Your task to perform on an android device: Go to sound settings Image 0: 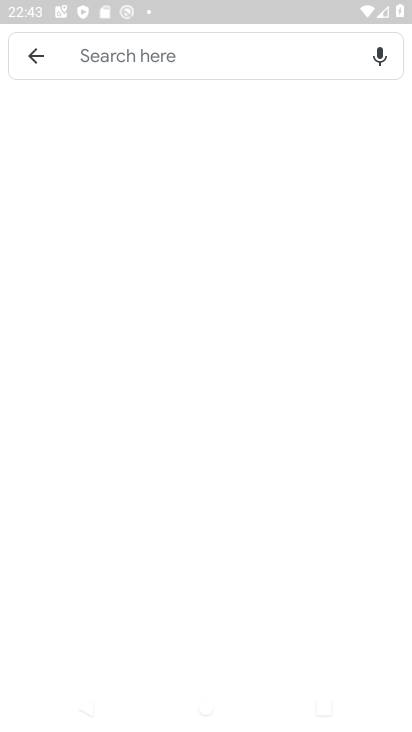
Step 0: drag from (136, 14) to (249, 111)
Your task to perform on an android device: Go to sound settings Image 1: 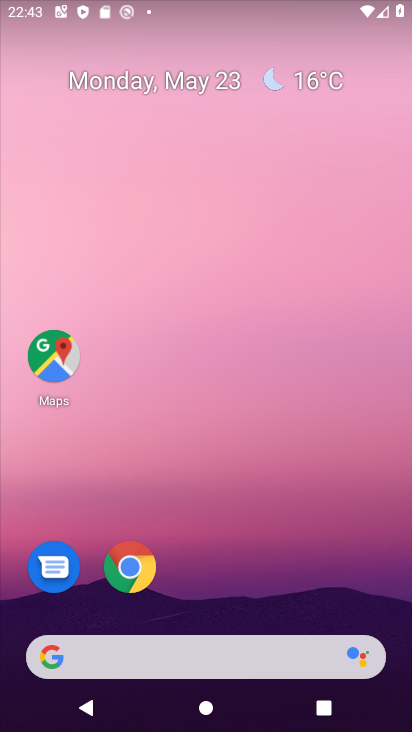
Step 1: drag from (191, 575) to (329, 85)
Your task to perform on an android device: Go to sound settings Image 2: 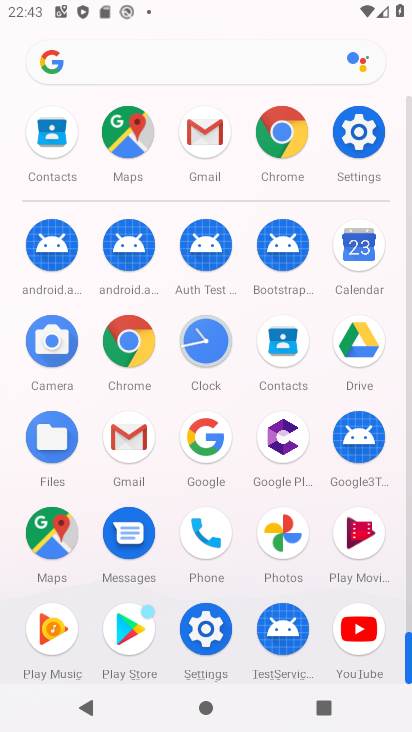
Step 2: click (202, 642)
Your task to perform on an android device: Go to sound settings Image 3: 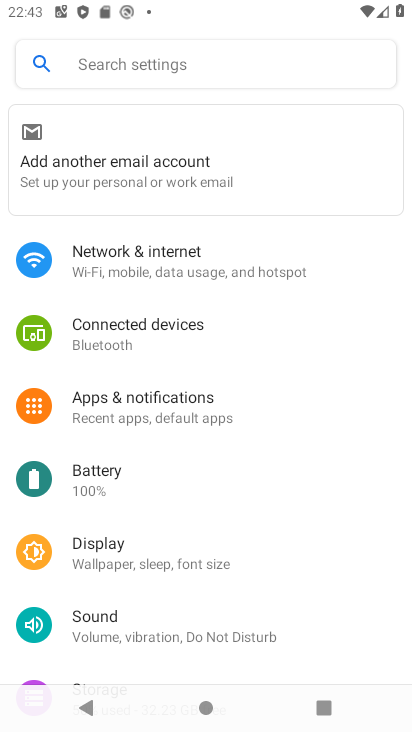
Step 3: drag from (186, 612) to (276, 206)
Your task to perform on an android device: Go to sound settings Image 4: 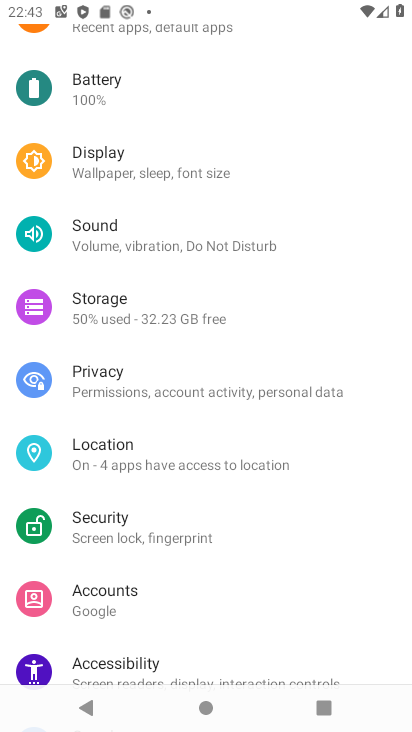
Step 4: click (129, 247)
Your task to perform on an android device: Go to sound settings Image 5: 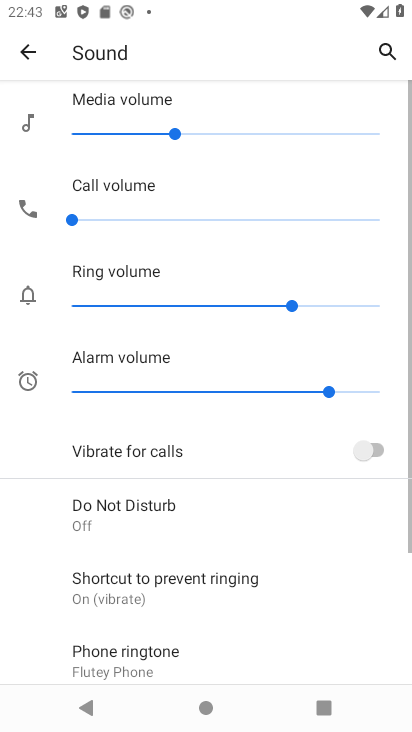
Step 5: task complete